Your task to perform on an android device: toggle show notifications on the lock screen Image 0: 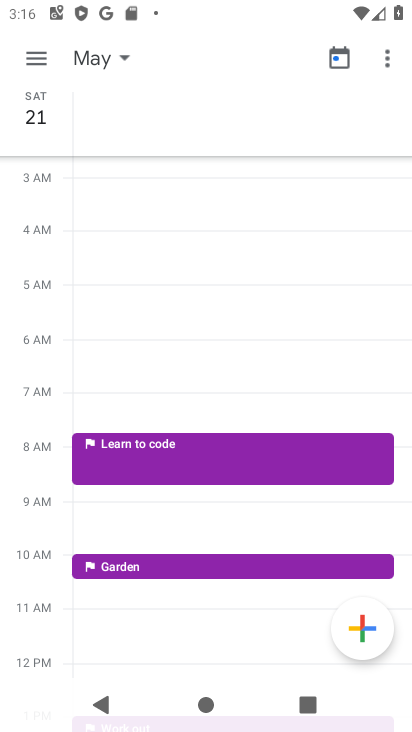
Step 0: press home button
Your task to perform on an android device: toggle show notifications on the lock screen Image 1: 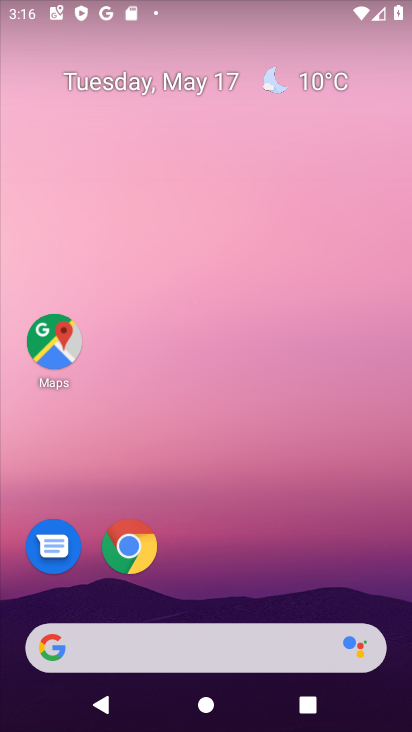
Step 1: drag from (222, 534) to (282, 118)
Your task to perform on an android device: toggle show notifications on the lock screen Image 2: 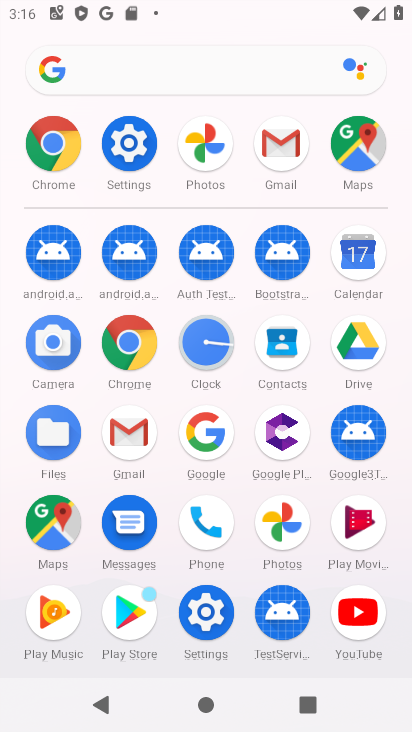
Step 2: click (143, 171)
Your task to perform on an android device: toggle show notifications on the lock screen Image 3: 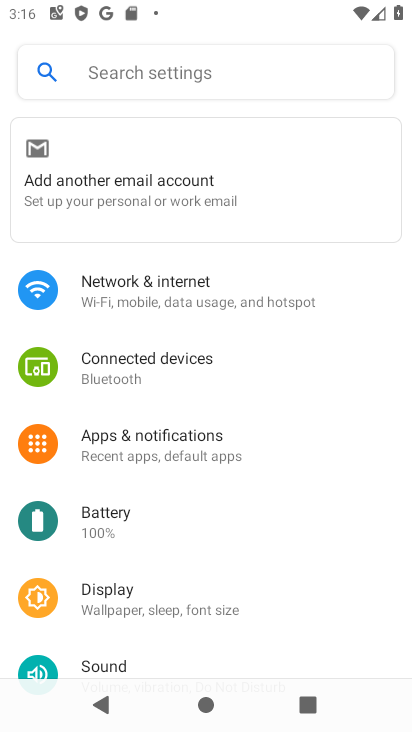
Step 3: click (187, 436)
Your task to perform on an android device: toggle show notifications on the lock screen Image 4: 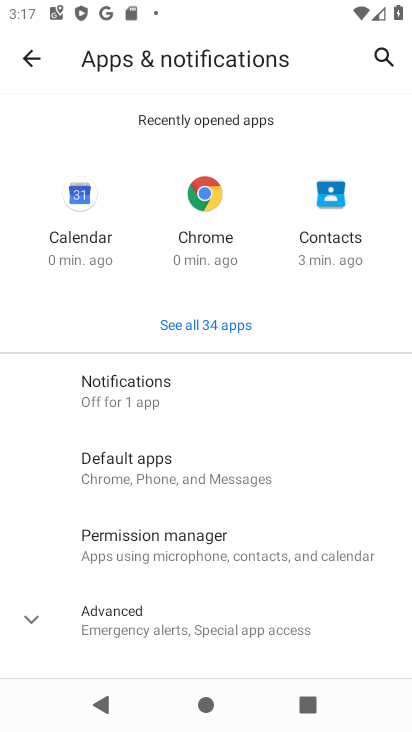
Step 4: click (153, 377)
Your task to perform on an android device: toggle show notifications on the lock screen Image 5: 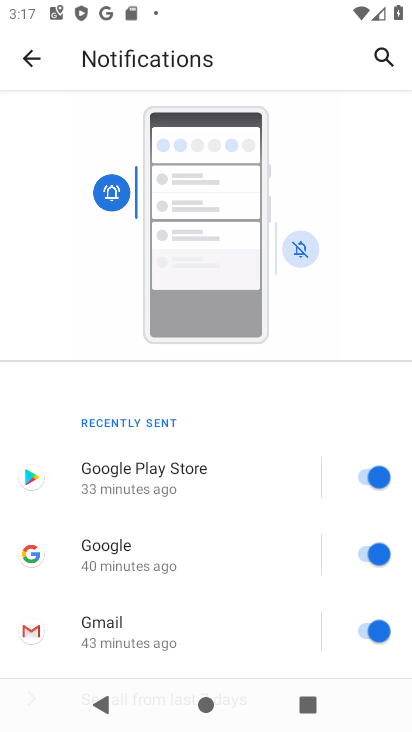
Step 5: drag from (138, 547) to (157, 214)
Your task to perform on an android device: toggle show notifications on the lock screen Image 6: 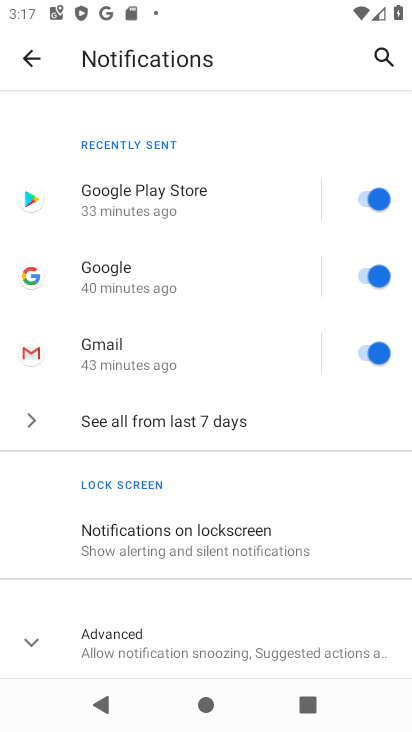
Step 6: click (150, 551)
Your task to perform on an android device: toggle show notifications on the lock screen Image 7: 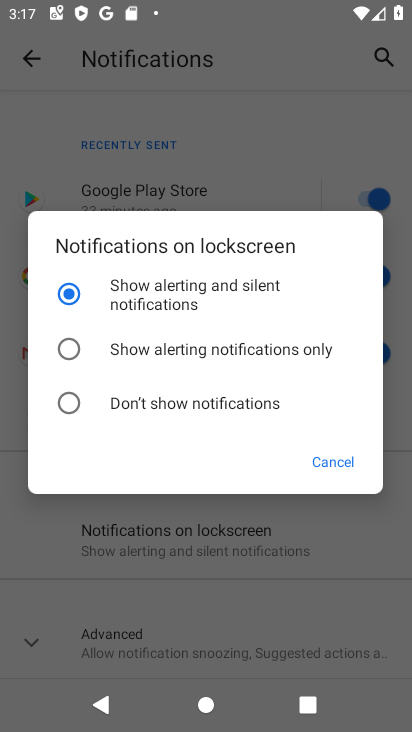
Step 7: click (153, 399)
Your task to perform on an android device: toggle show notifications on the lock screen Image 8: 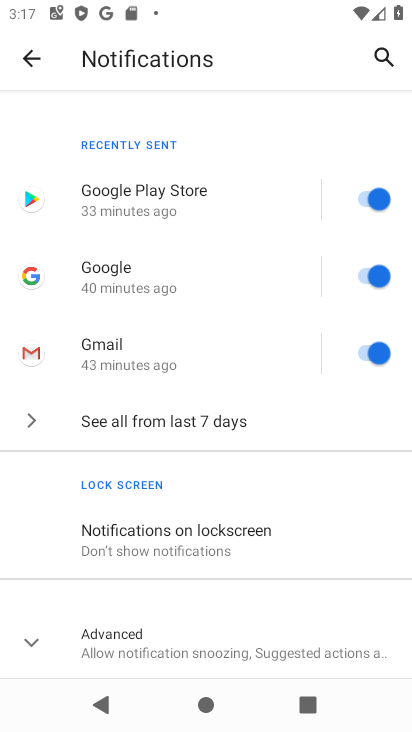
Step 8: task complete